Your task to perform on an android device: add a label to a message in the gmail app Image 0: 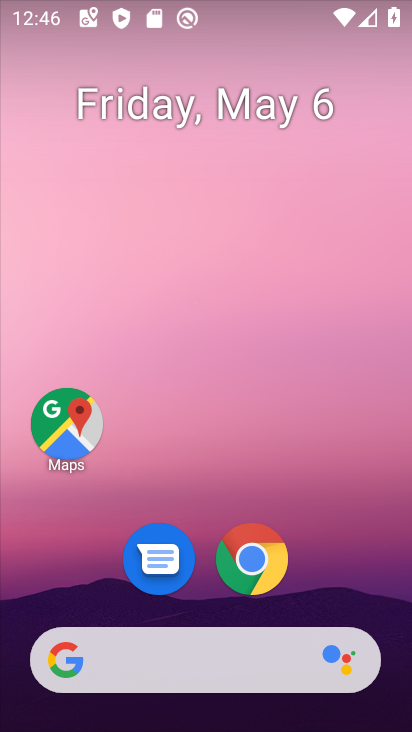
Step 0: drag from (336, 584) to (277, 54)
Your task to perform on an android device: add a label to a message in the gmail app Image 1: 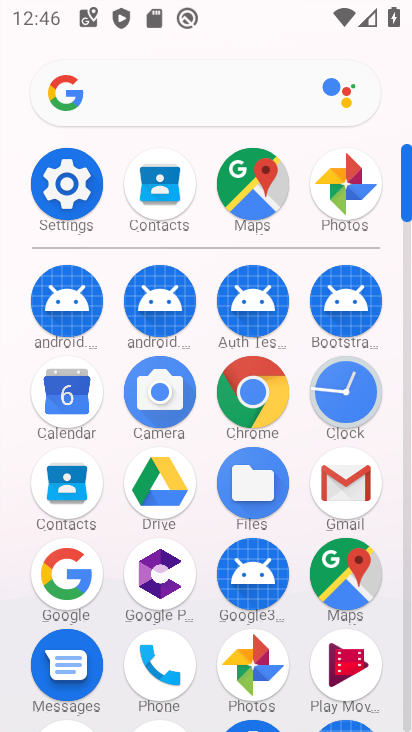
Step 1: click (358, 476)
Your task to perform on an android device: add a label to a message in the gmail app Image 2: 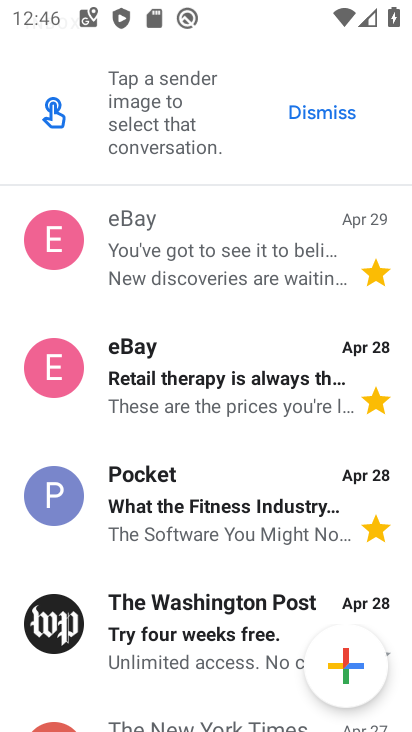
Step 2: drag from (71, 171) to (174, 525)
Your task to perform on an android device: add a label to a message in the gmail app Image 3: 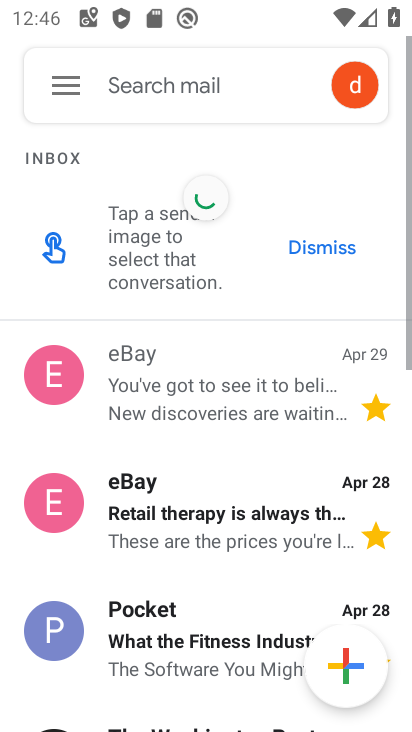
Step 3: click (66, 75)
Your task to perform on an android device: add a label to a message in the gmail app Image 4: 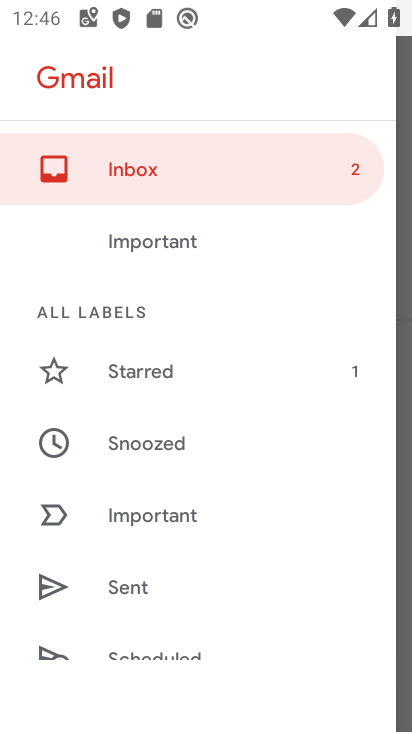
Step 4: drag from (149, 609) to (179, 166)
Your task to perform on an android device: add a label to a message in the gmail app Image 5: 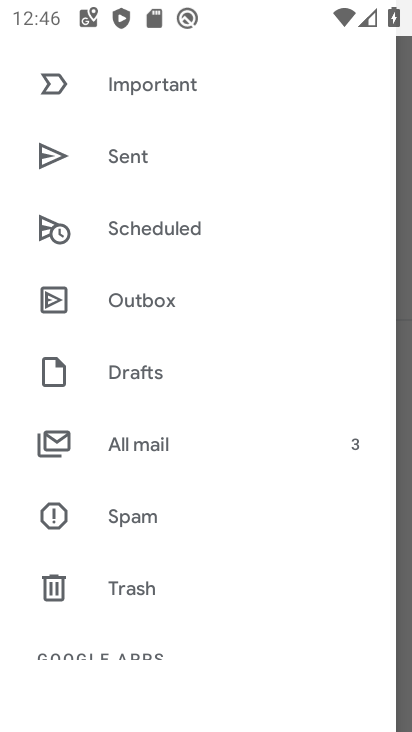
Step 5: click (174, 87)
Your task to perform on an android device: add a label to a message in the gmail app Image 6: 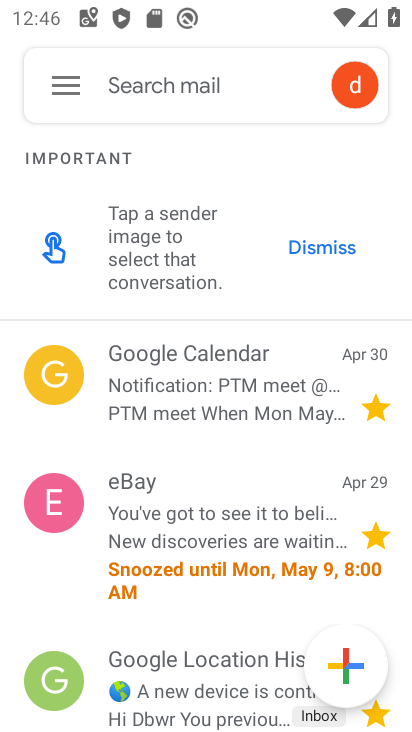
Step 6: click (211, 351)
Your task to perform on an android device: add a label to a message in the gmail app Image 7: 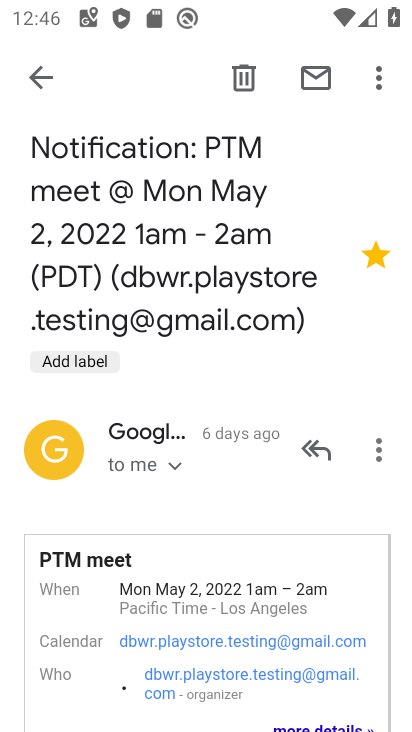
Step 7: click (93, 363)
Your task to perform on an android device: add a label to a message in the gmail app Image 8: 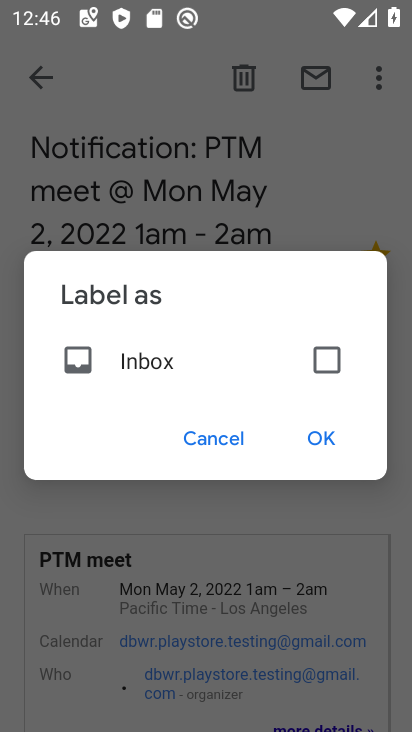
Step 8: click (327, 351)
Your task to perform on an android device: add a label to a message in the gmail app Image 9: 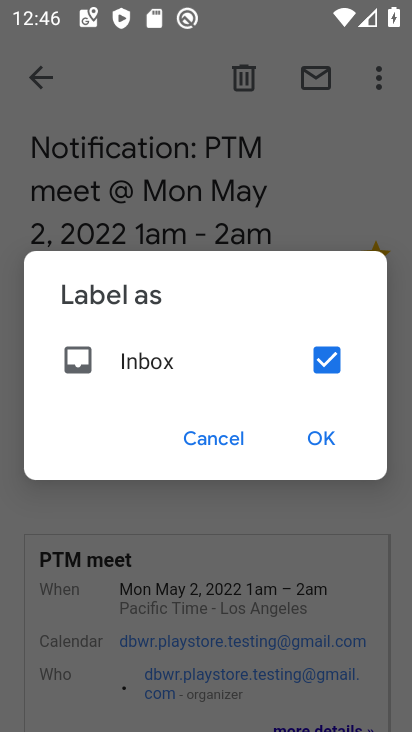
Step 9: click (326, 438)
Your task to perform on an android device: add a label to a message in the gmail app Image 10: 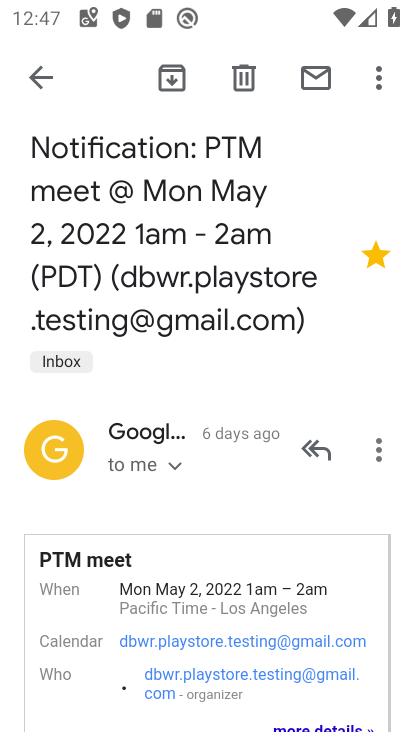
Step 10: task complete